Your task to perform on an android device: turn on bluetooth scan Image 0: 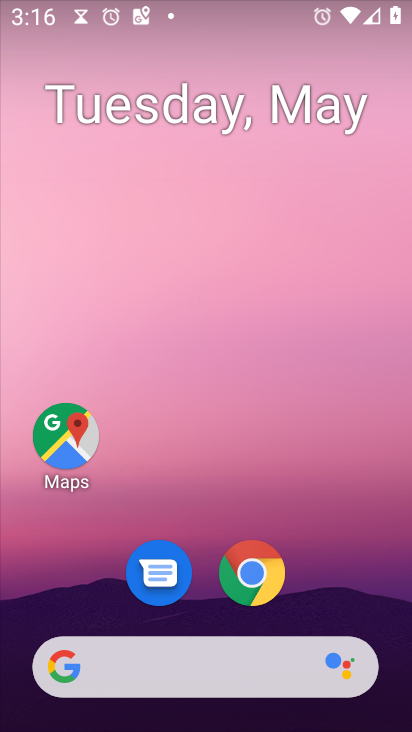
Step 0: drag from (368, 575) to (250, 47)
Your task to perform on an android device: turn on bluetooth scan Image 1: 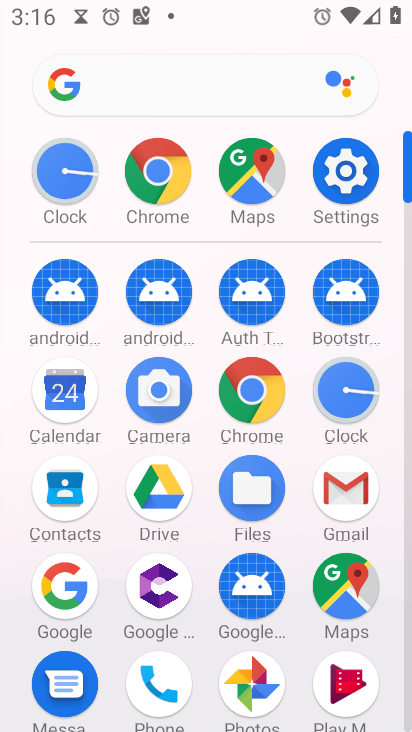
Step 1: click (346, 169)
Your task to perform on an android device: turn on bluetooth scan Image 2: 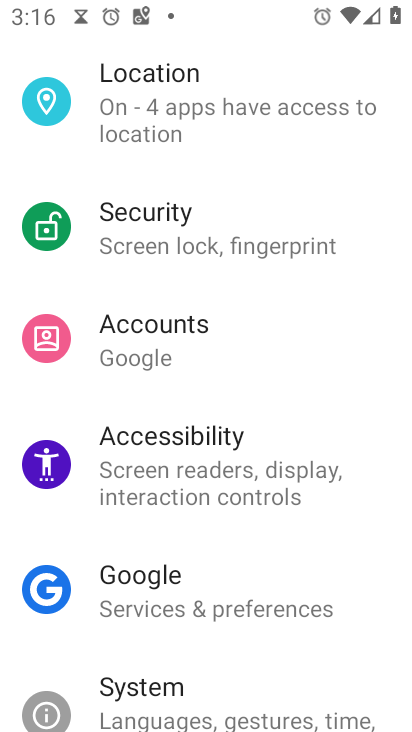
Step 2: drag from (298, 144) to (251, 522)
Your task to perform on an android device: turn on bluetooth scan Image 3: 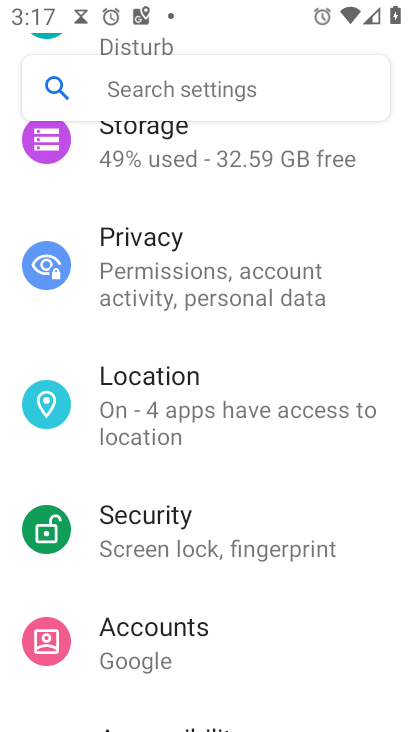
Step 3: click (179, 401)
Your task to perform on an android device: turn on bluetooth scan Image 4: 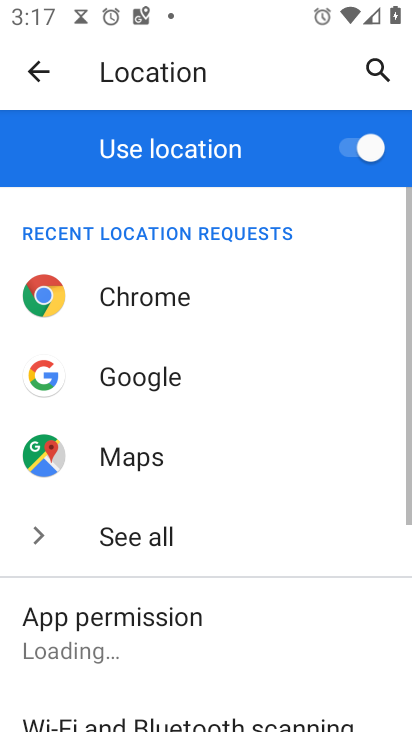
Step 4: drag from (205, 575) to (241, 243)
Your task to perform on an android device: turn on bluetooth scan Image 5: 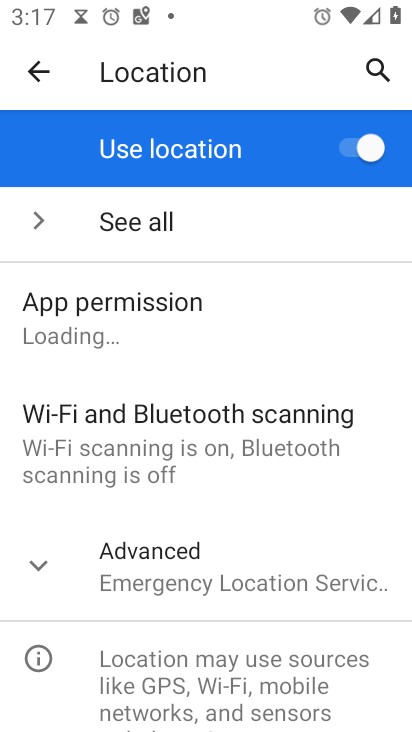
Step 5: click (198, 419)
Your task to perform on an android device: turn on bluetooth scan Image 6: 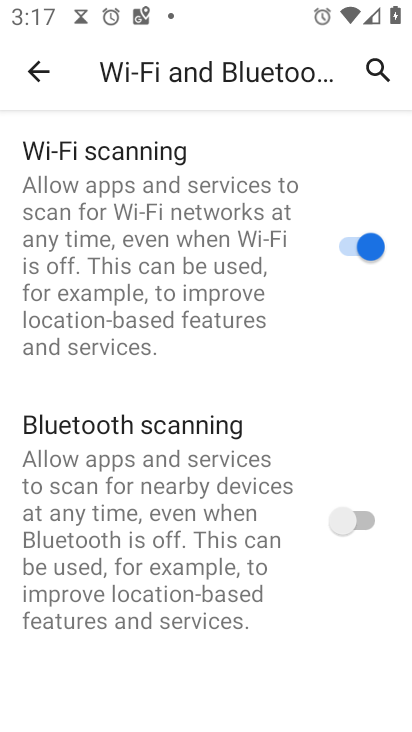
Step 6: click (358, 522)
Your task to perform on an android device: turn on bluetooth scan Image 7: 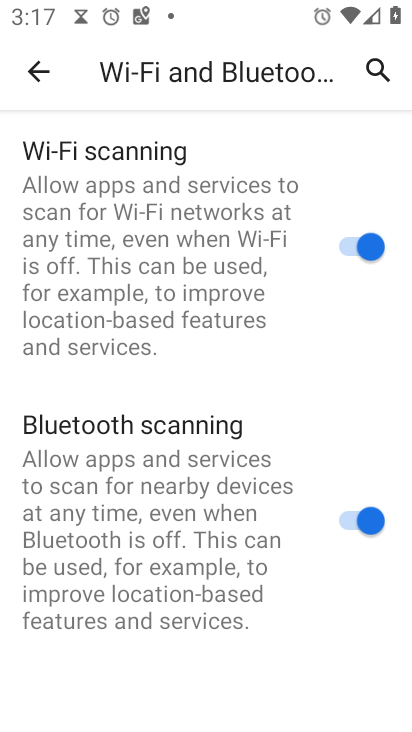
Step 7: task complete